Your task to perform on an android device: What's the weather going to be tomorrow? Image 0: 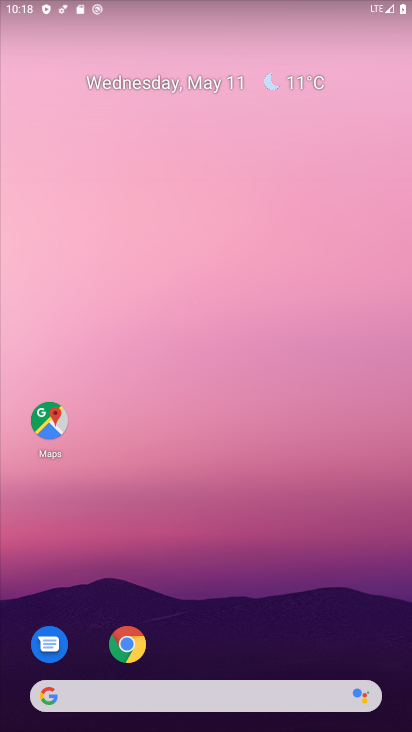
Step 0: press home button
Your task to perform on an android device: What's the weather going to be tomorrow? Image 1: 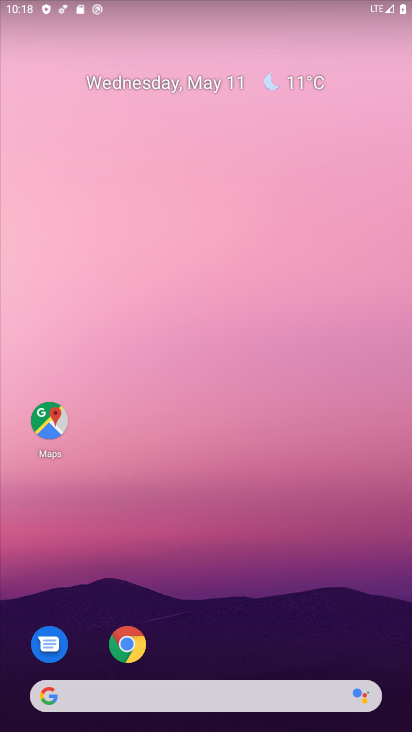
Step 1: click (298, 76)
Your task to perform on an android device: What's the weather going to be tomorrow? Image 2: 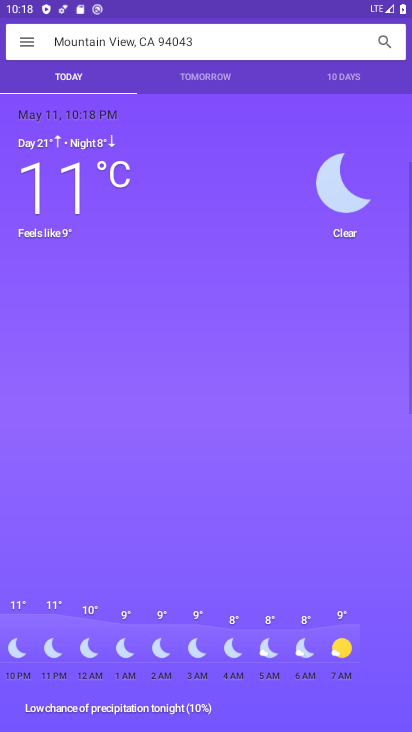
Step 2: click (207, 72)
Your task to perform on an android device: What's the weather going to be tomorrow? Image 3: 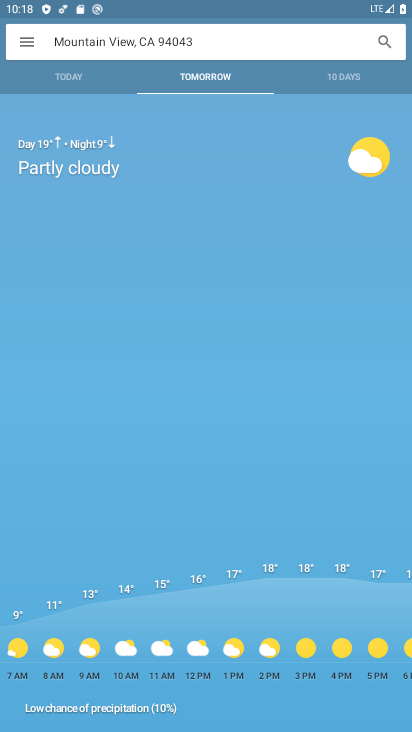
Step 3: task complete